Your task to perform on an android device: Play the last video I watched on Youtube Image 0: 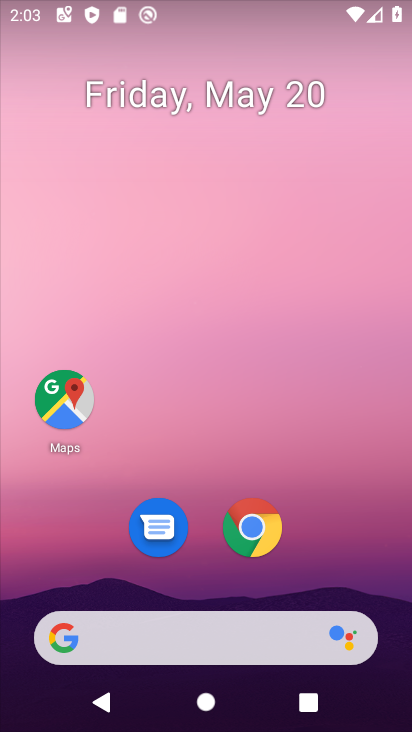
Step 0: drag from (254, 690) to (350, 324)
Your task to perform on an android device: Play the last video I watched on Youtube Image 1: 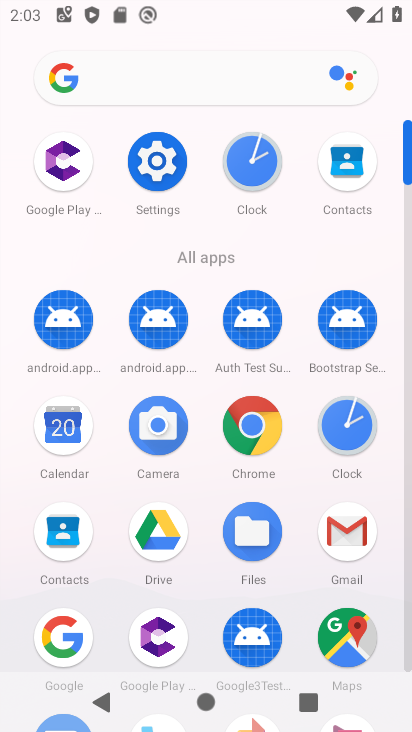
Step 1: drag from (273, 678) to (294, 195)
Your task to perform on an android device: Play the last video I watched on Youtube Image 2: 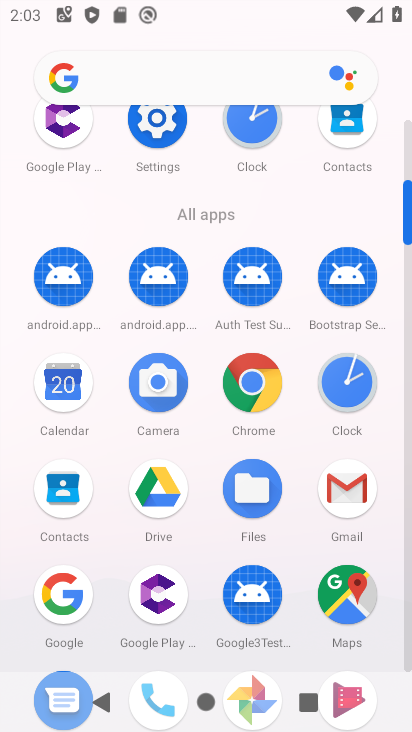
Step 2: drag from (249, 455) to (311, 81)
Your task to perform on an android device: Play the last video I watched on Youtube Image 3: 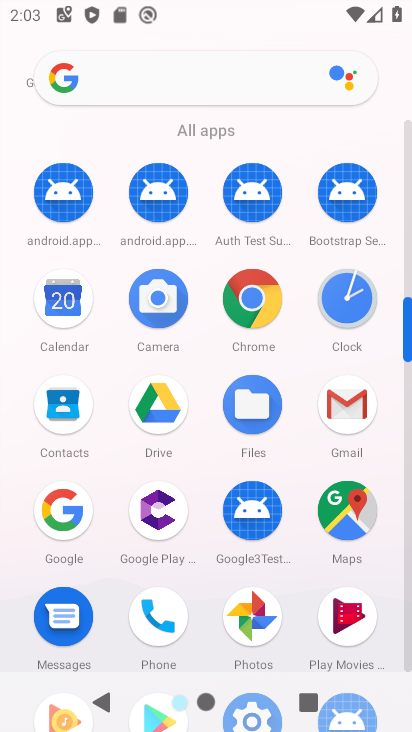
Step 3: drag from (181, 515) to (208, 10)
Your task to perform on an android device: Play the last video I watched on Youtube Image 4: 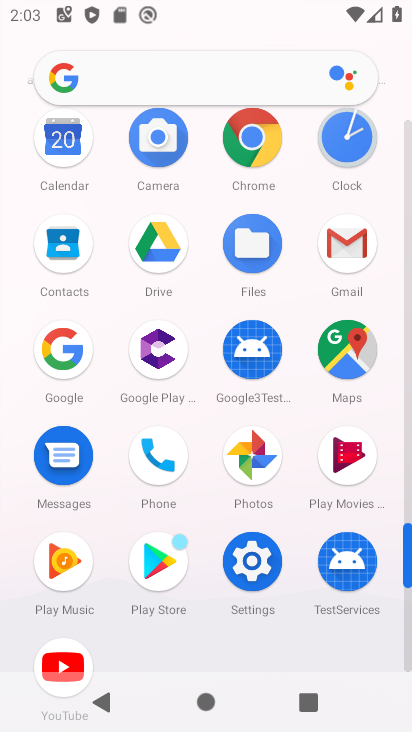
Step 4: click (68, 670)
Your task to perform on an android device: Play the last video I watched on Youtube Image 5: 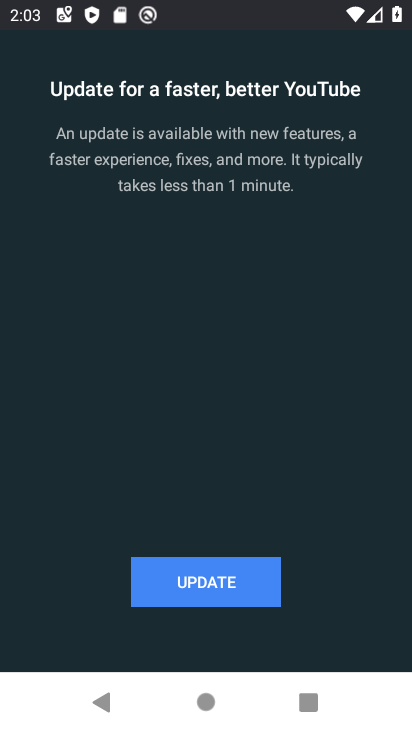
Step 5: click (217, 585)
Your task to perform on an android device: Play the last video I watched on Youtube Image 6: 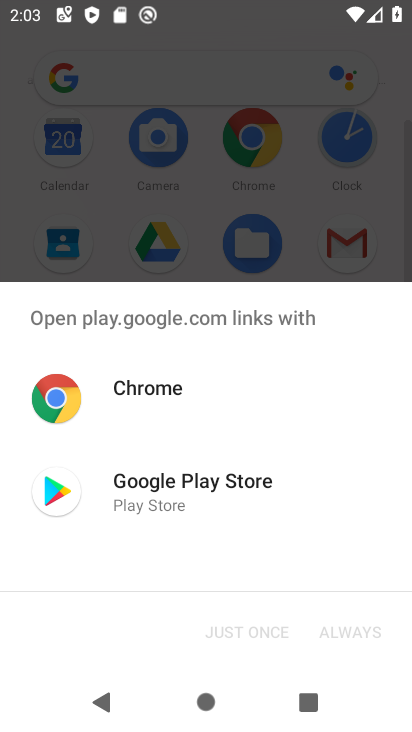
Step 6: click (162, 376)
Your task to perform on an android device: Play the last video I watched on Youtube Image 7: 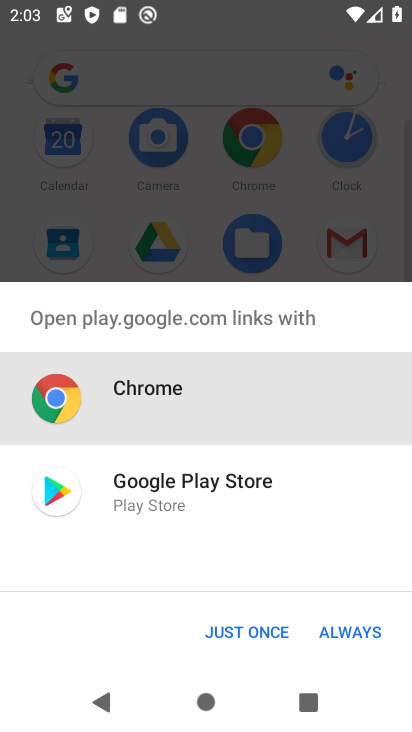
Step 7: click (325, 629)
Your task to perform on an android device: Play the last video I watched on Youtube Image 8: 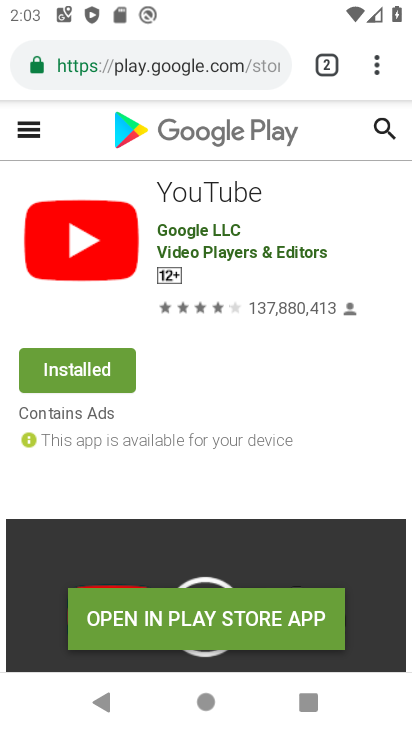
Step 8: click (230, 625)
Your task to perform on an android device: Play the last video I watched on Youtube Image 9: 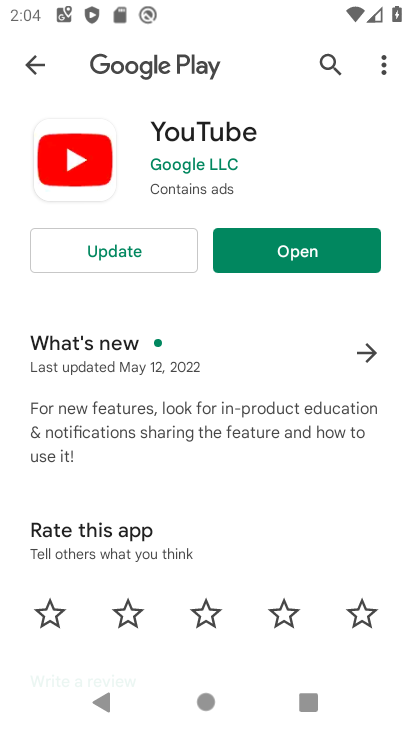
Step 9: click (160, 243)
Your task to perform on an android device: Play the last video I watched on Youtube Image 10: 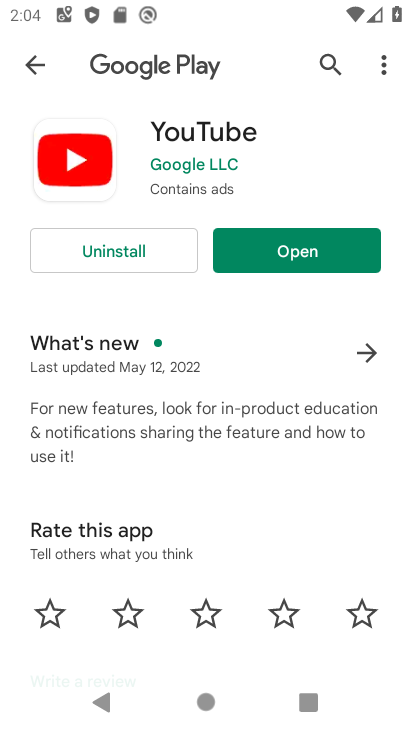
Step 10: click (349, 261)
Your task to perform on an android device: Play the last video I watched on Youtube Image 11: 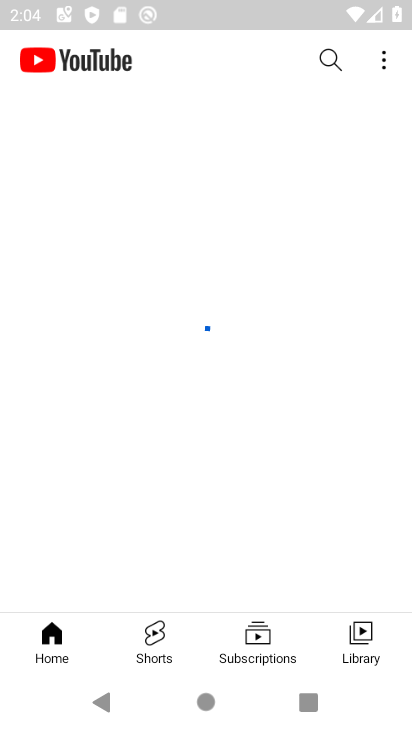
Step 11: click (359, 632)
Your task to perform on an android device: Play the last video I watched on Youtube Image 12: 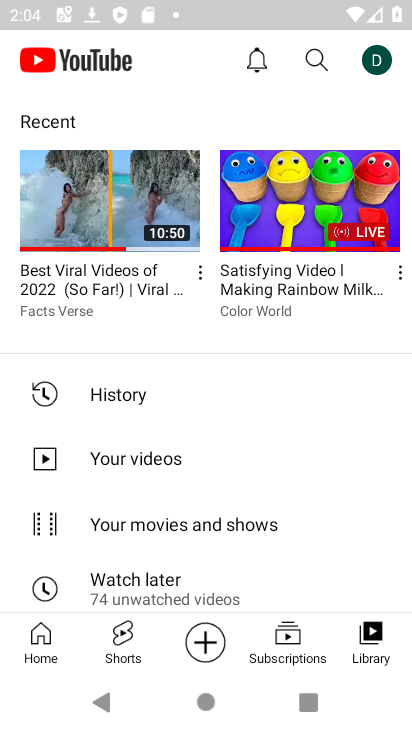
Step 12: click (84, 223)
Your task to perform on an android device: Play the last video I watched on Youtube Image 13: 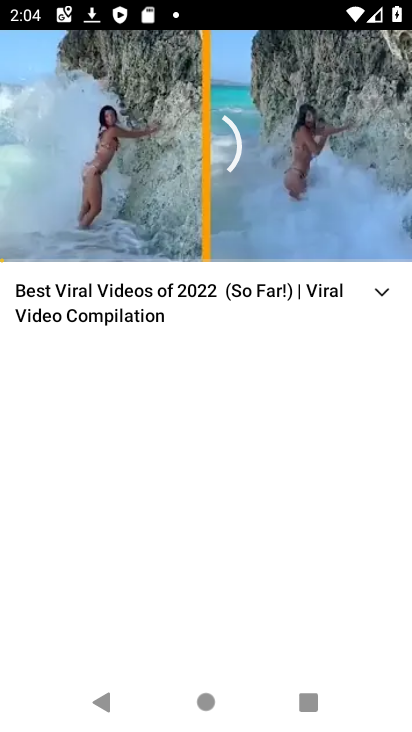
Step 13: task complete